Your task to perform on an android device: Open the calendar app, open the side menu, and click the "Day" option Image 0: 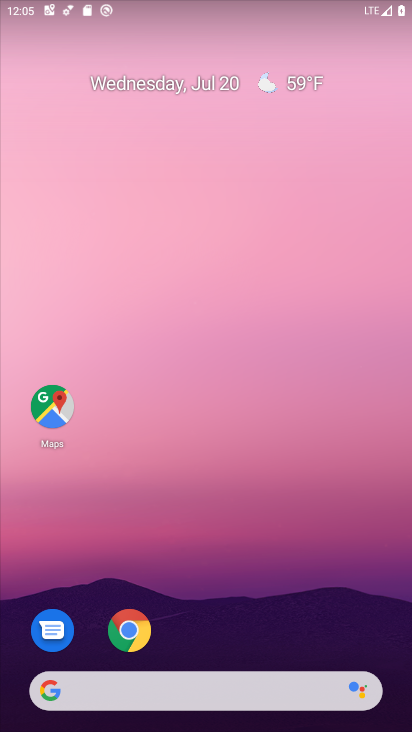
Step 0: drag from (391, 648) to (320, 129)
Your task to perform on an android device: Open the calendar app, open the side menu, and click the "Day" option Image 1: 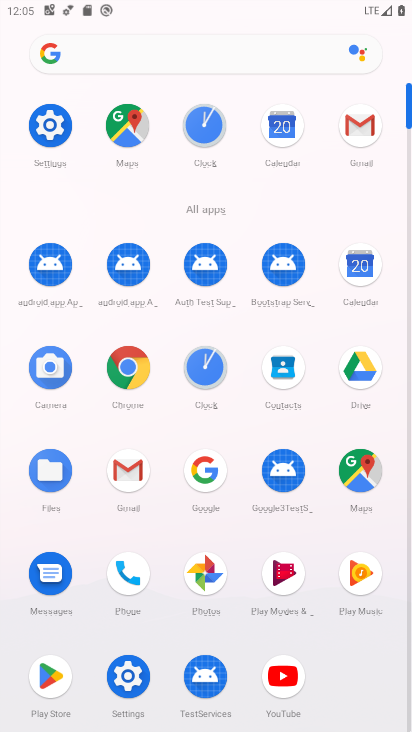
Step 1: click (360, 265)
Your task to perform on an android device: Open the calendar app, open the side menu, and click the "Day" option Image 2: 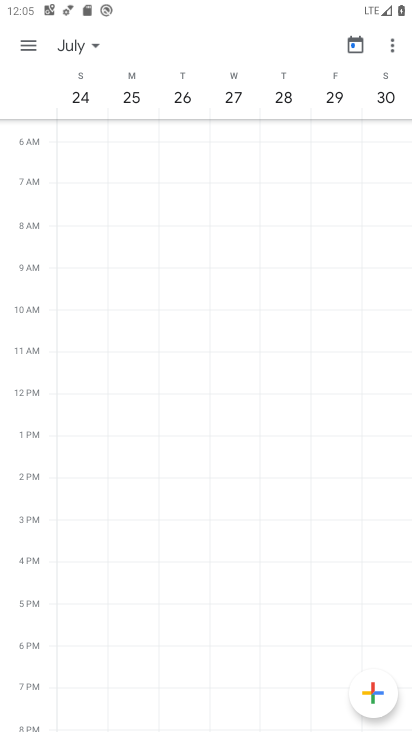
Step 2: click (30, 47)
Your task to perform on an android device: Open the calendar app, open the side menu, and click the "Day" option Image 3: 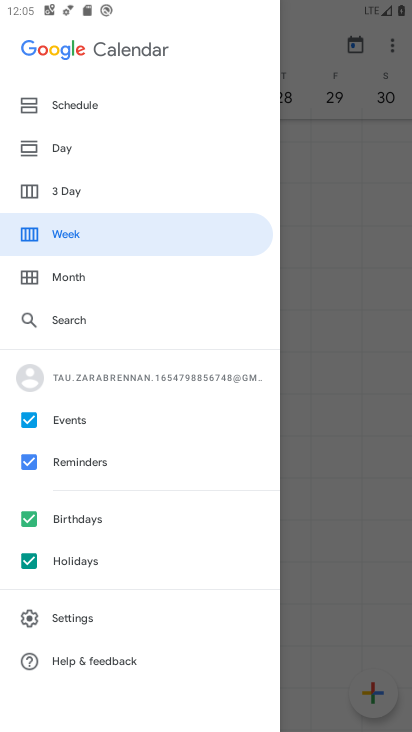
Step 3: click (58, 145)
Your task to perform on an android device: Open the calendar app, open the side menu, and click the "Day" option Image 4: 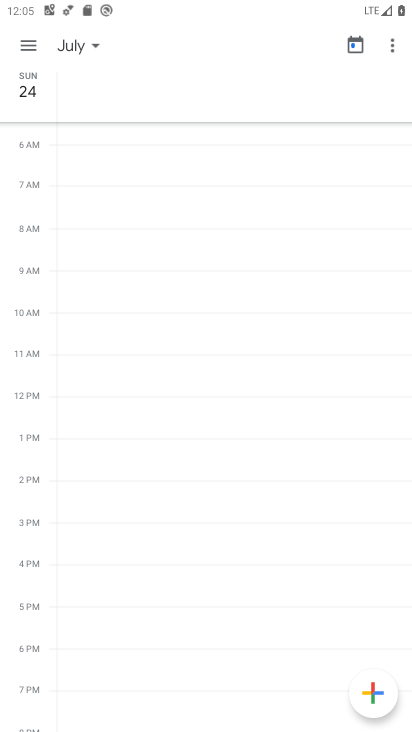
Step 4: task complete